Your task to perform on an android device: Search for Mexican restaurants on Maps Image 0: 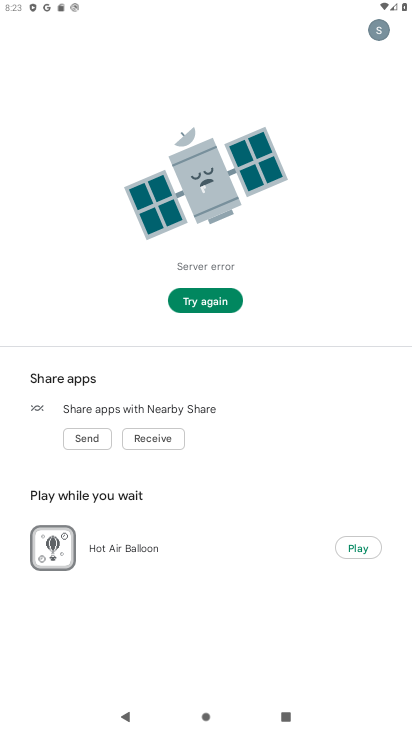
Step 0: press home button
Your task to perform on an android device: Search for Mexican restaurants on Maps Image 1: 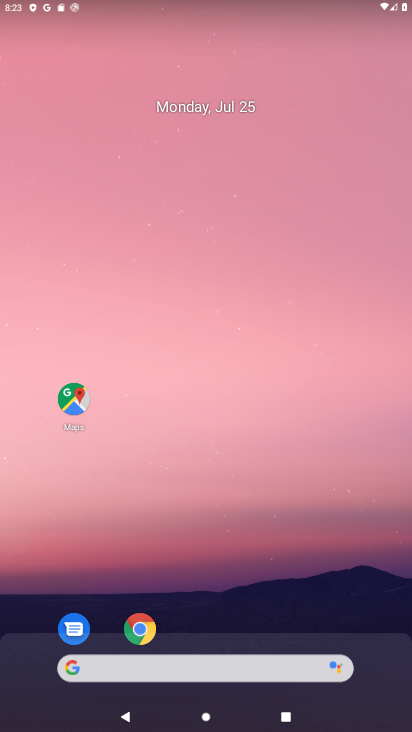
Step 1: click (73, 407)
Your task to perform on an android device: Search for Mexican restaurants on Maps Image 2: 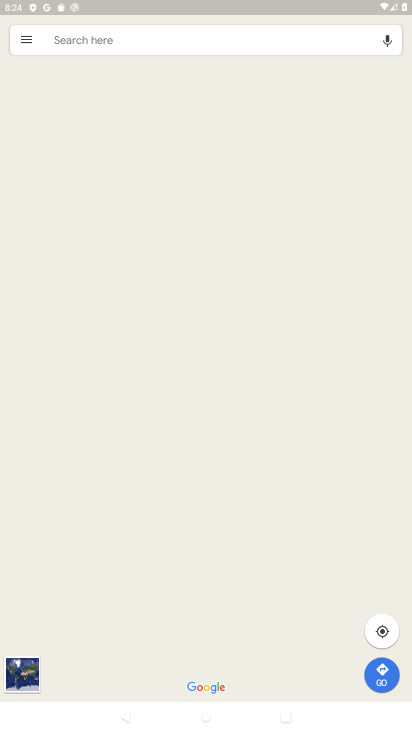
Step 2: click (108, 42)
Your task to perform on an android device: Search for Mexican restaurants on Maps Image 3: 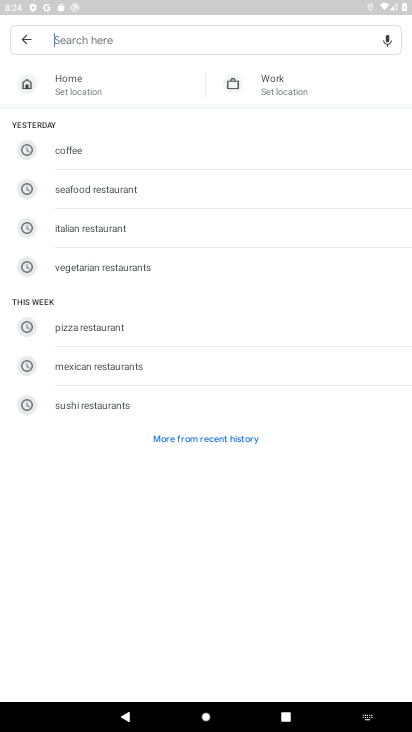
Step 3: click (82, 39)
Your task to perform on an android device: Search for Mexican restaurants on Maps Image 4: 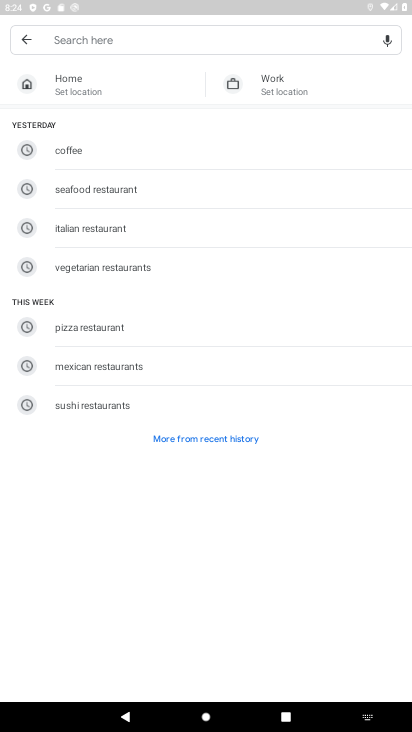
Step 4: type " Mexican restaurants "
Your task to perform on an android device: Search for Mexican restaurants on Maps Image 5: 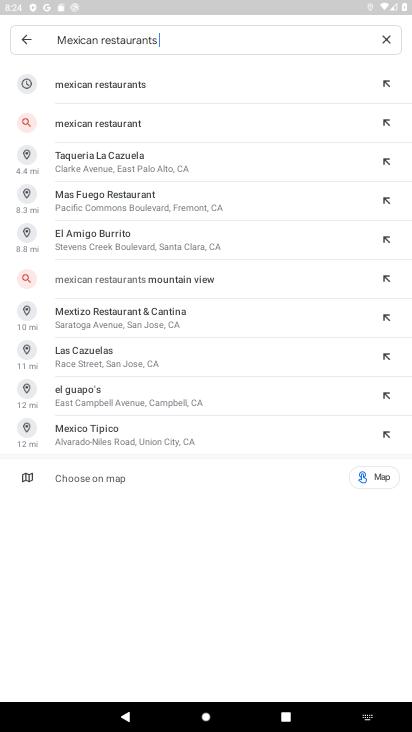
Step 5: click (102, 80)
Your task to perform on an android device: Search for Mexican restaurants on Maps Image 6: 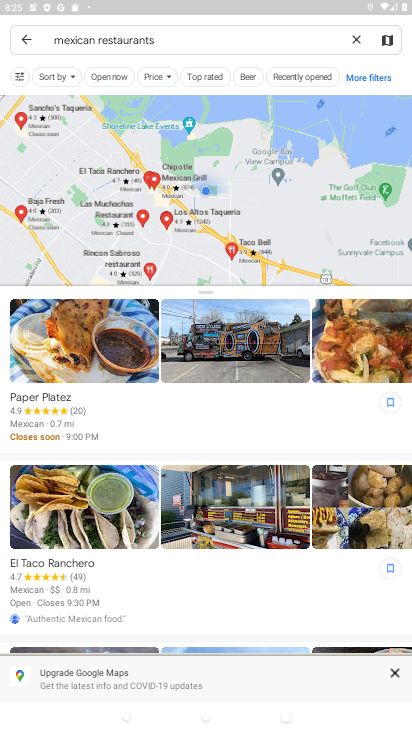
Step 6: task complete